Your task to perform on an android device: Clear the shopping cart on amazon.com. Add "usb-c" to the cart on amazon.com, then select checkout. Image 0: 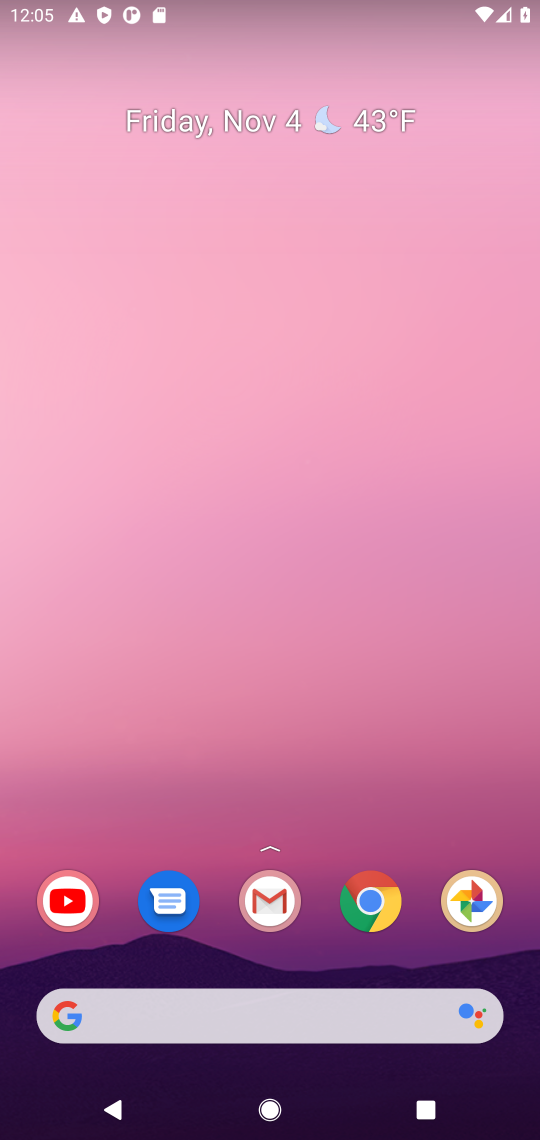
Step 0: click (394, 895)
Your task to perform on an android device: Clear the shopping cart on amazon.com. Add "usb-c" to the cart on amazon.com, then select checkout. Image 1: 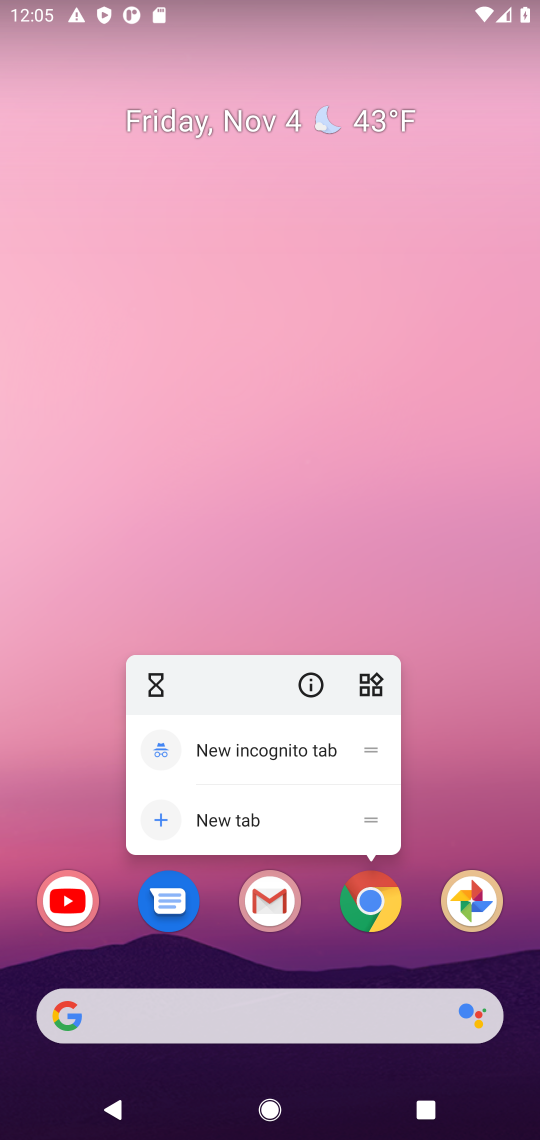
Step 1: click (394, 894)
Your task to perform on an android device: Clear the shopping cart on amazon.com. Add "usb-c" to the cart on amazon.com, then select checkout. Image 2: 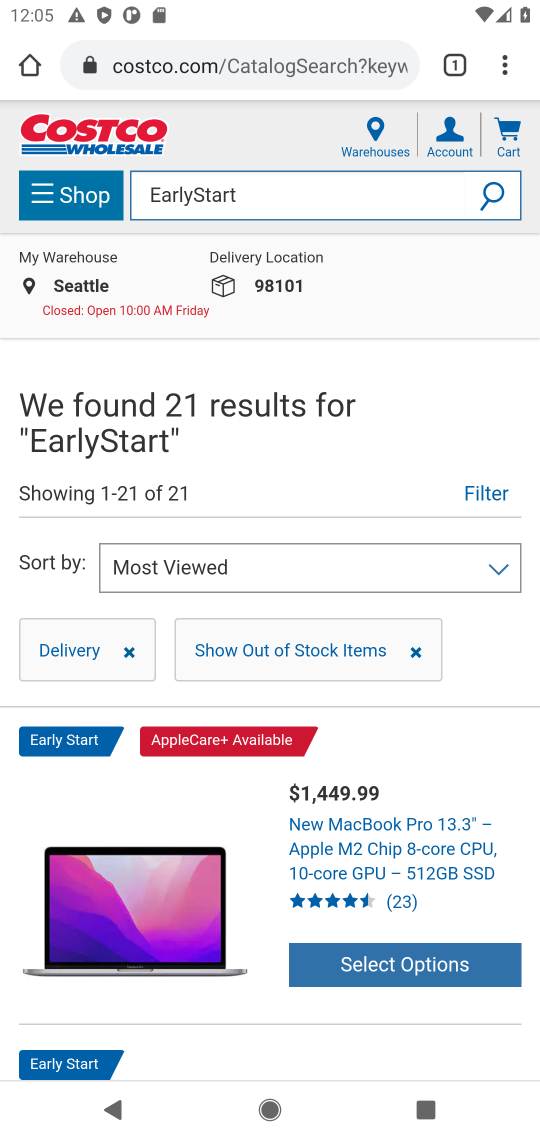
Step 2: click (33, 70)
Your task to perform on an android device: Clear the shopping cart on amazon.com. Add "usb-c" to the cart on amazon.com, then select checkout. Image 3: 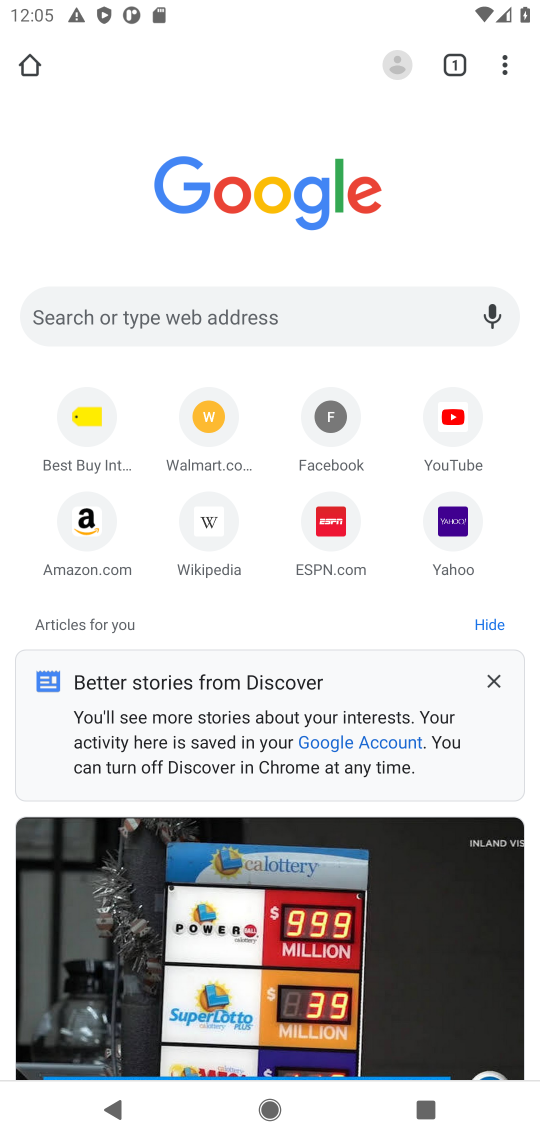
Step 3: click (258, 293)
Your task to perform on an android device: Clear the shopping cart on amazon.com. Add "usb-c" to the cart on amazon.com, then select checkout. Image 4: 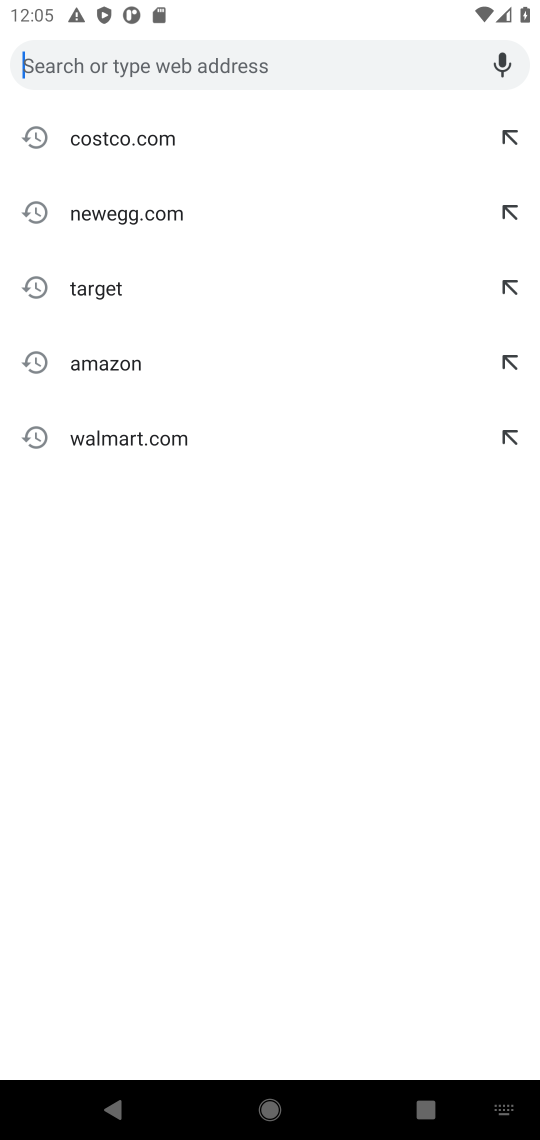
Step 4: click (133, 363)
Your task to perform on an android device: Clear the shopping cart on amazon.com. Add "usb-c" to the cart on amazon.com, then select checkout. Image 5: 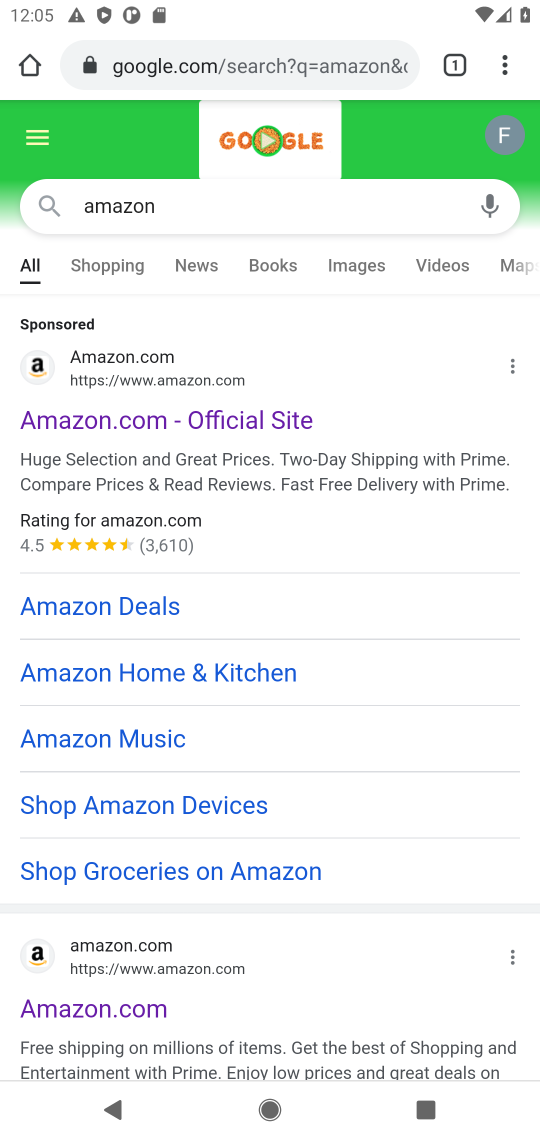
Step 5: click (151, 367)
Your task to perform on an android device: Clear the shopping cart on amazon.com. Add "usb-c" to the cart on amazon.com, then select checkout. Image 6: 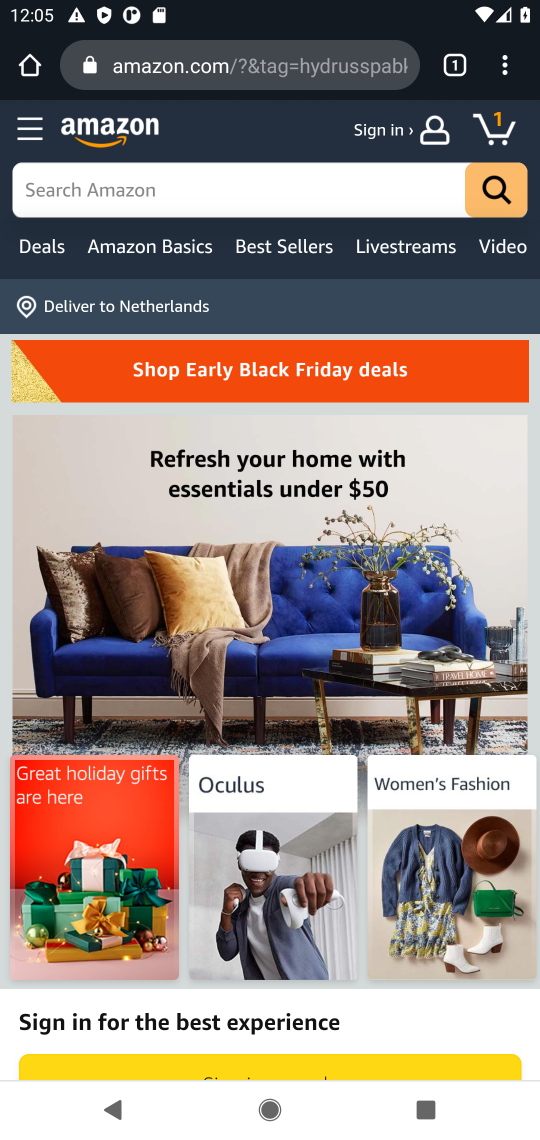
Step 6: click (500, 123)
Your task to perform on an android device: Clear the shopping cart on amazon.com. Add "usb-c" to the cart on amazon.com, then select checkout. Image 7: 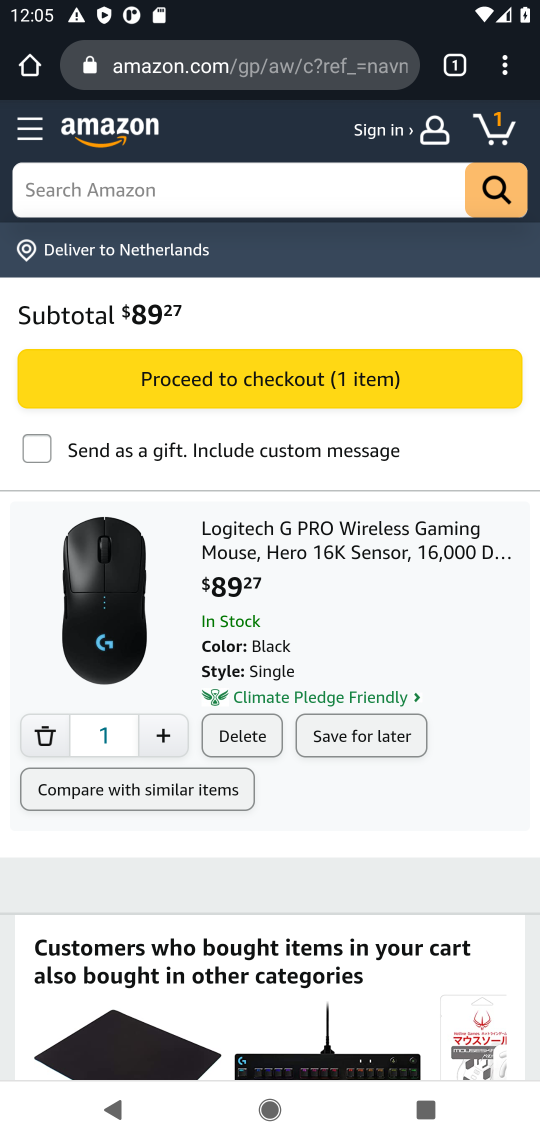
Step 7: click (246, 736)
Your task to perform on an android device: Clear the shopping cart on amazon.com. Add "usb-c" to the cart on amazon.com, then select checkout. Image 8: 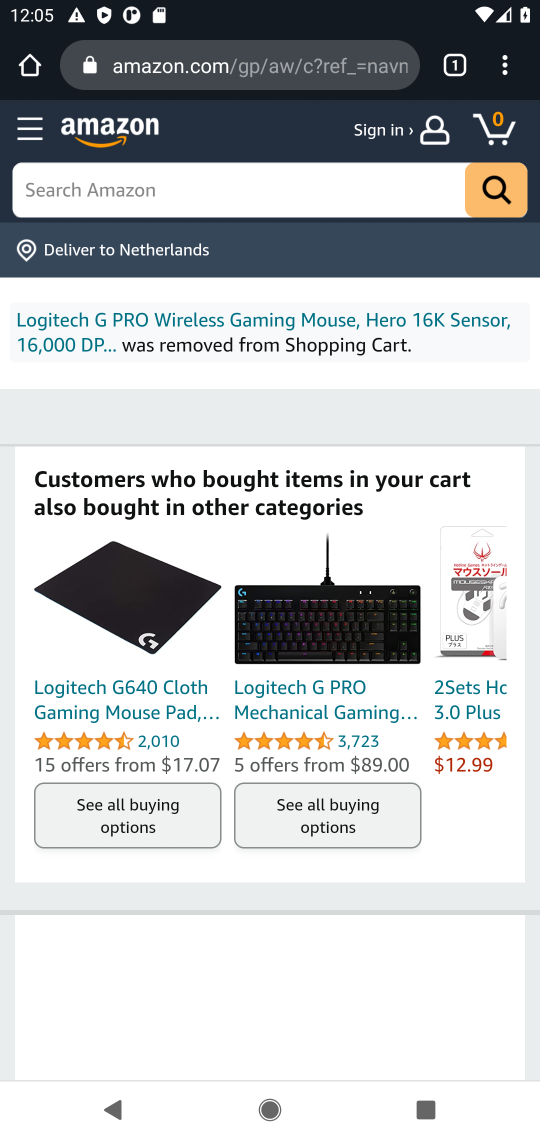
Step 8: click (210, 190)
Your task to perform on an android device: Clear the shopping cart on amazon.com. Add "usb-c" to the cart on amazon.com, then select checkout. Image 9: 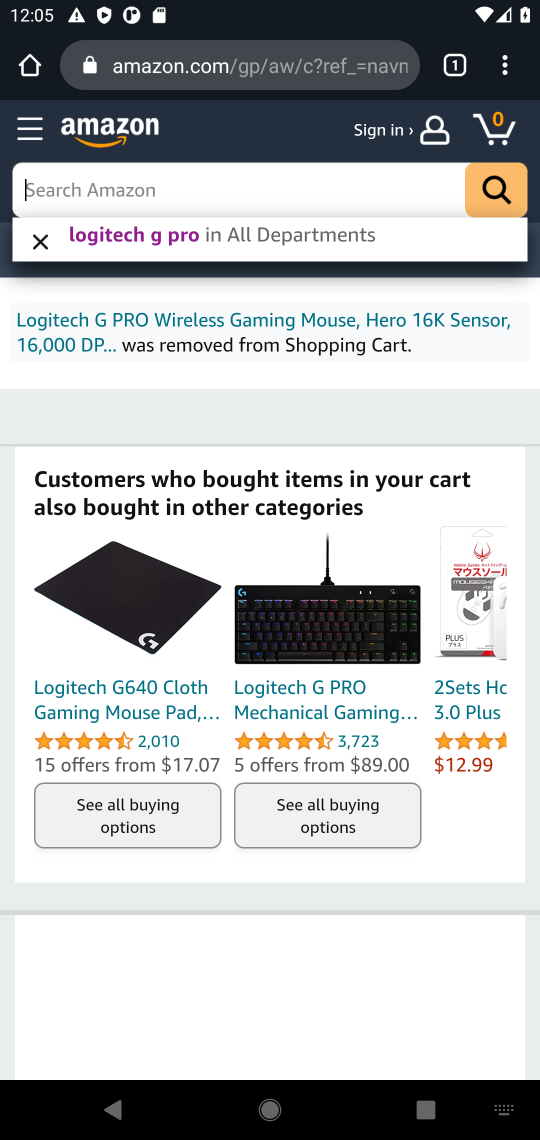
Step 9: type "usb-c"
Your task to perform on an android device: Clear the shopping cart on amazon.com. Add "usb-c" to the cart on amazon.com, then select checkout. Image 10: 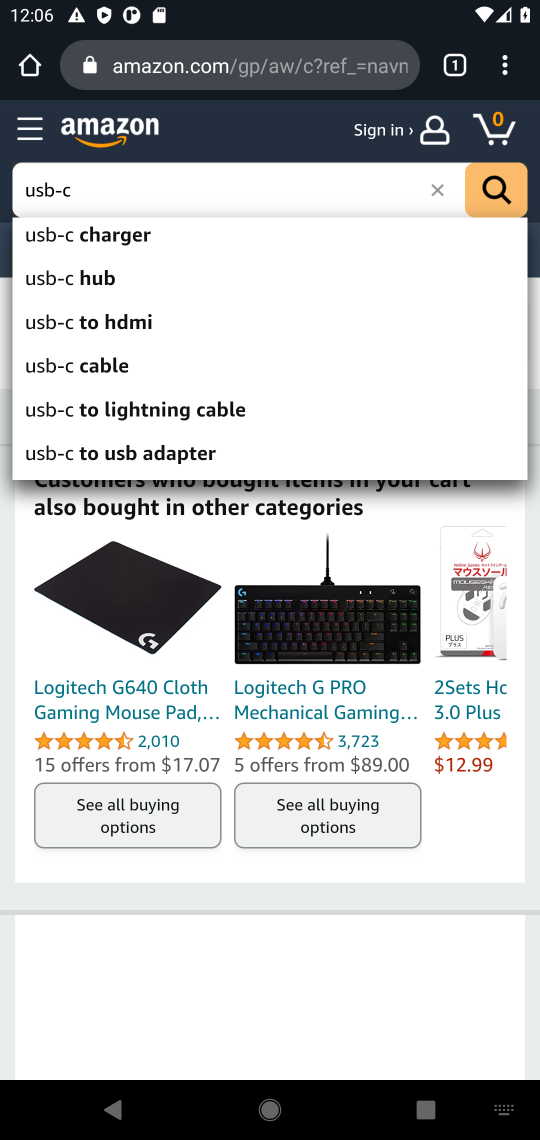
Step 10: click (112, 367)
Your task to perform on an android device: Clear the shopping cart on amazon.com. Add "usb-c" to the cart on amazon.com, then select checkout. Image 11: 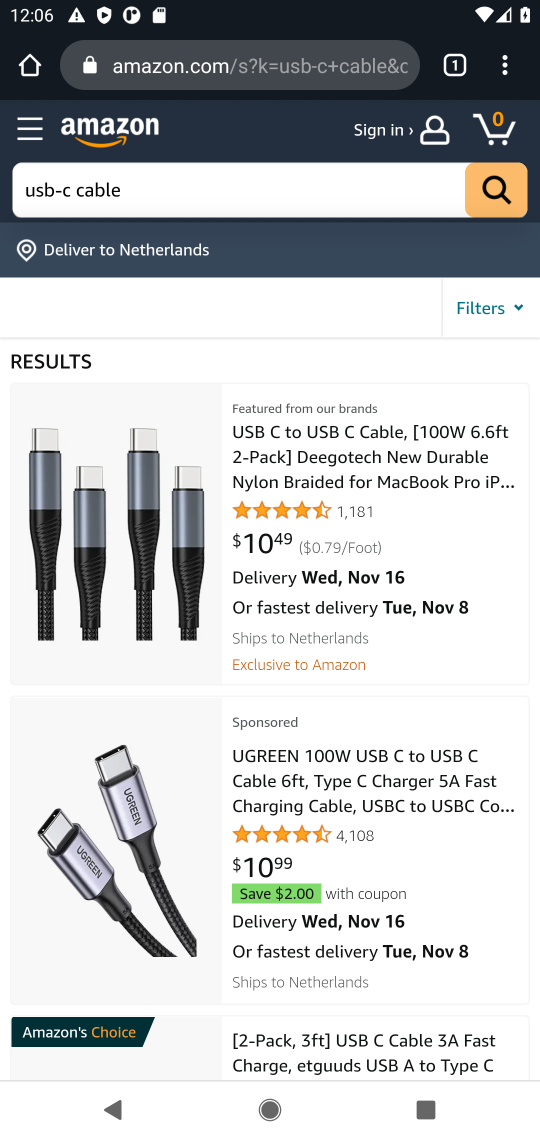
Step 11: click (143, 549)
Your task to perform on an android device: Clear the shopping cart on amazon.com. Add "usb-c" to the cart on amazon.com, then select checkout. Image 12: 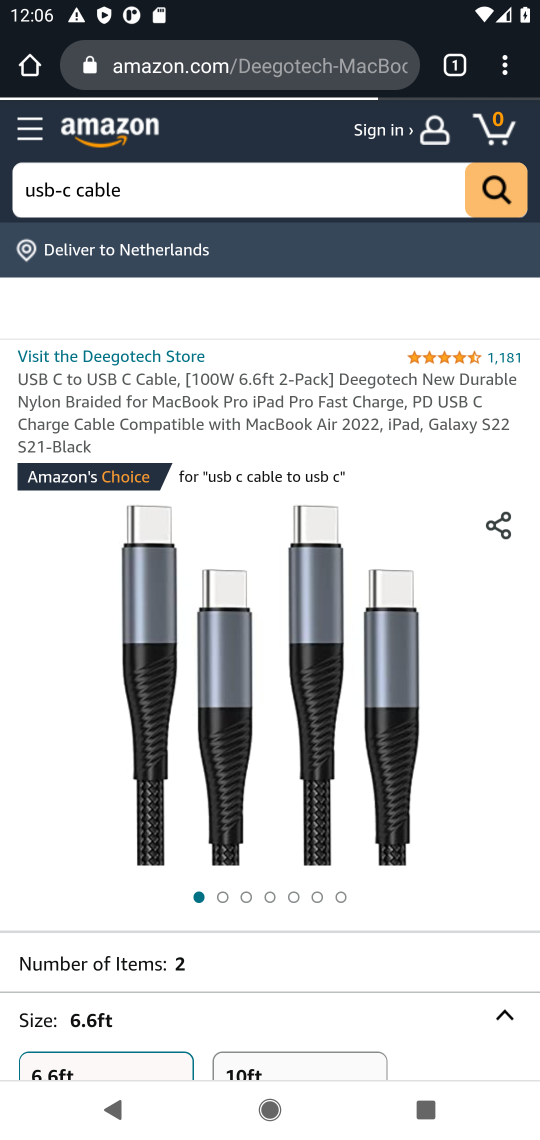
Step 12: drag from (331, 575) to (310, 436)
Your task to perform on an android device: Clear the shopping cart on amazon.com. Add "usb-c" to the cart on amazon.com, then select checkout. Image 13: 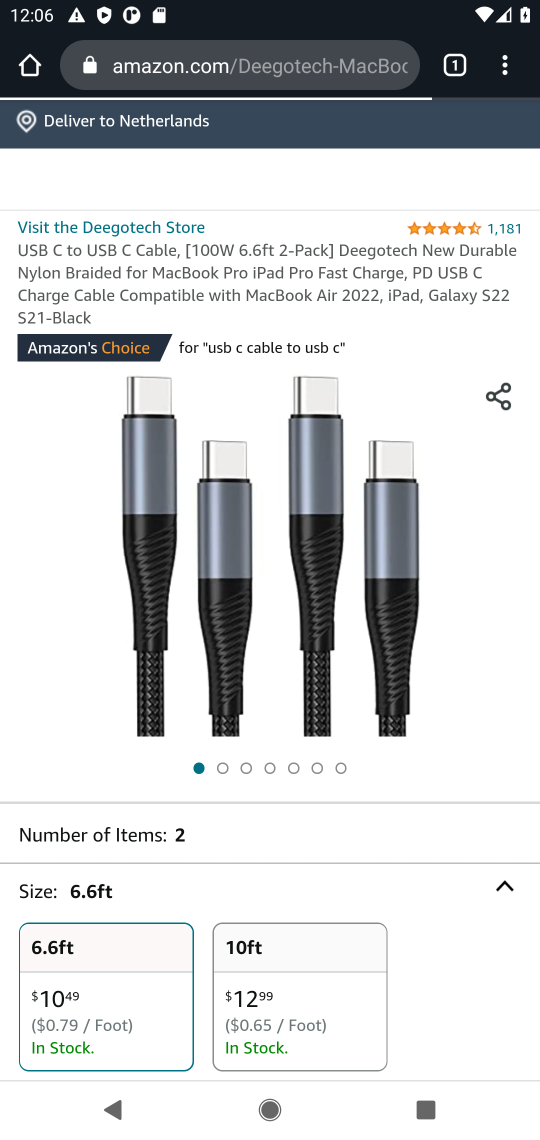
Step 13: drag from (365, 692) to (348, 543)
Your task to perform on an android device: Clear the shopping cart on amazon.com. Add "usb-c" to the cart on amazon.com, then select checkout. Image 14: 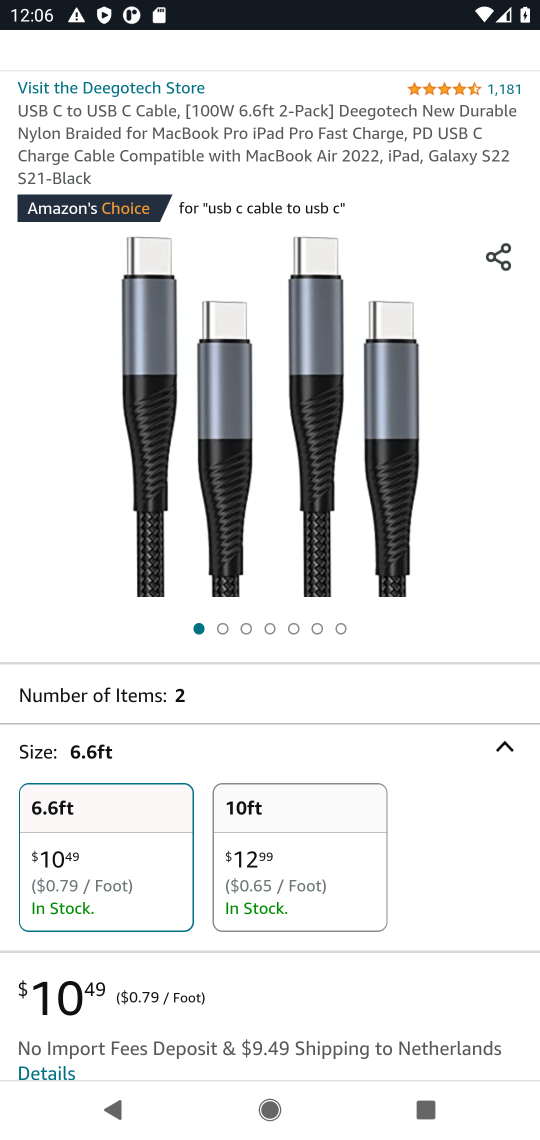
Step 14: drag from (415, 695) to (351, 441)
Your task to perform on an android device: Clear the shopping cart on amazon.com. Add "usb-c" to the cart on amazon.com, then select checkout. Image 15: 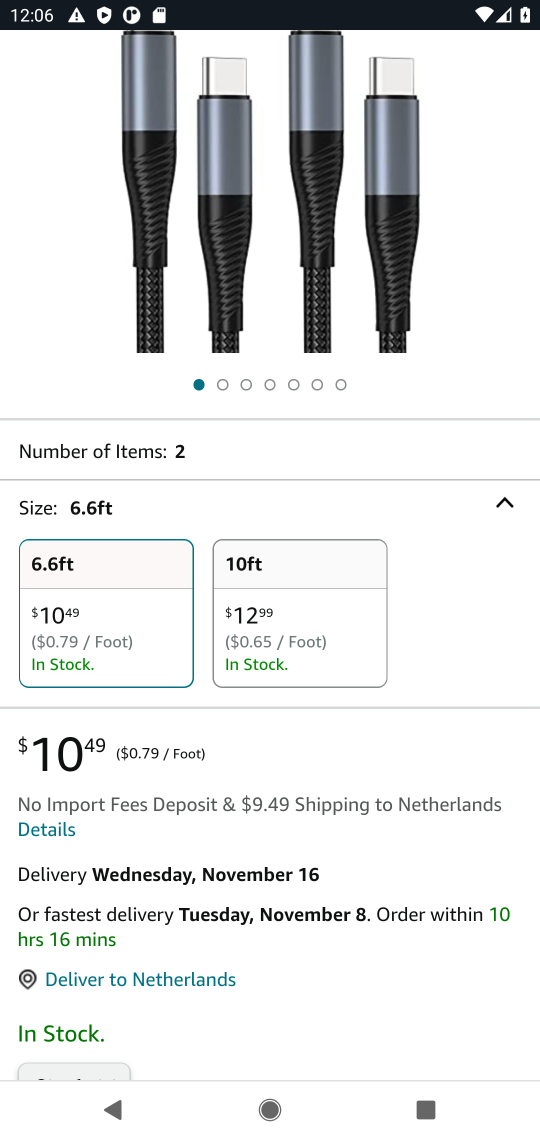
Step 15: drag from (488, 875) to (391, 520)
Your task to perform on an android device: Clear the shopping cart on amazon.com. Add "usb-c" to the cart on amazon.com, then select checkout. Image 16: 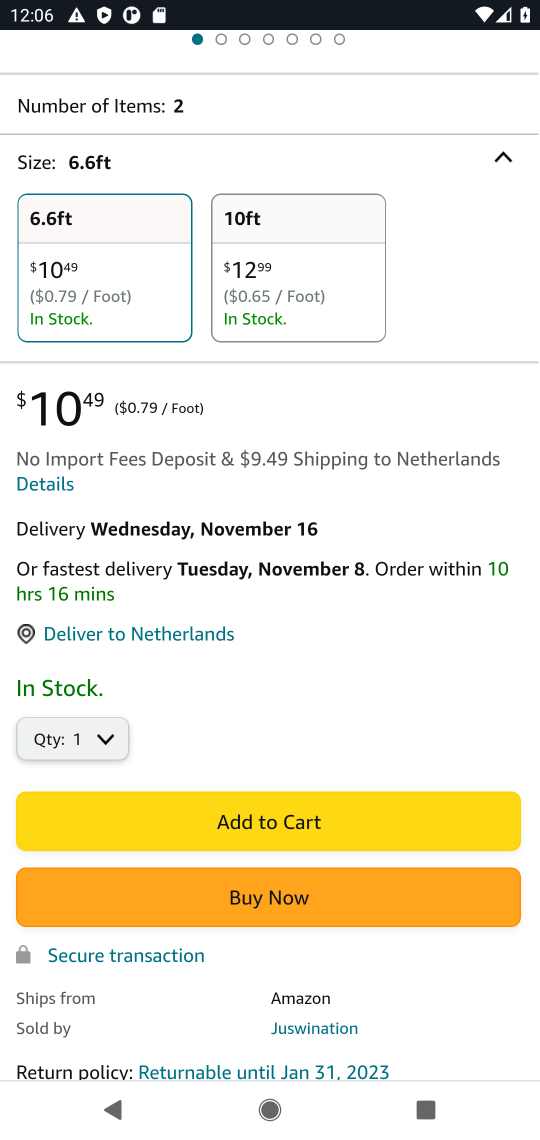
Step 16: click (297, 819)
Your task to perform on an android device: Clear the shopping cart on amazon.com. Add "usb-c" to the cart on amazon.com, then select checkout. Image 17: 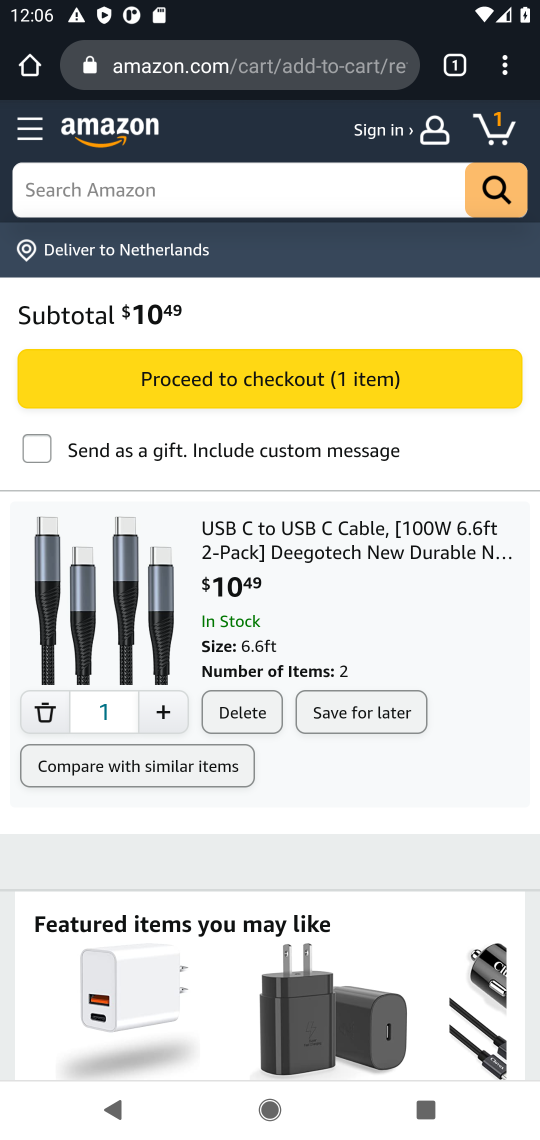
Step 17: click (260, 378)
Your task to perform on an android device: Clear the shopping cart on amazon.com. Add "usb-c" to the cart on amazon.com, then select checkout. Image 18: 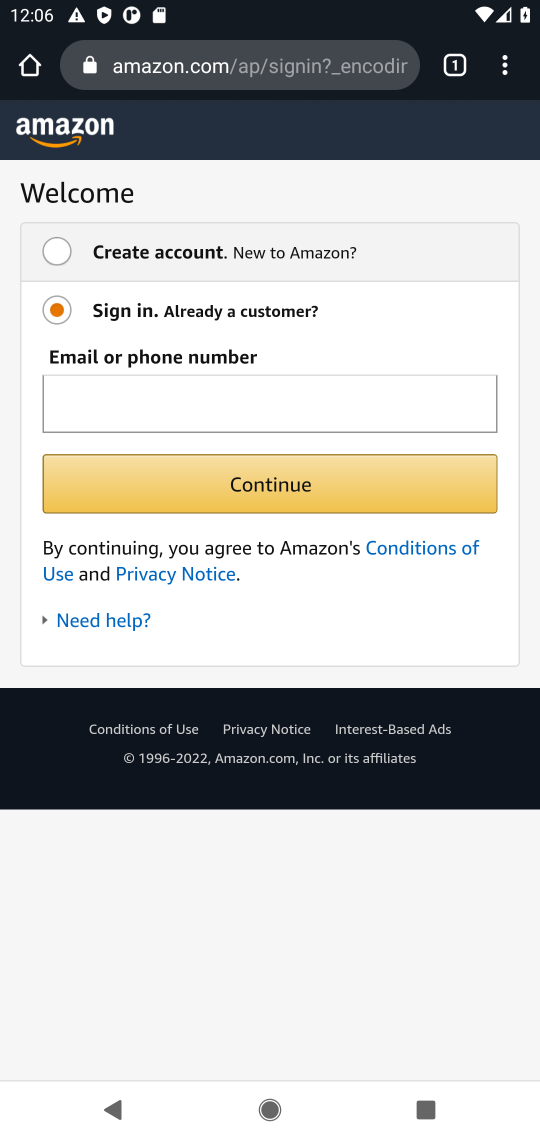
Step 18: task complete